Your task to perform on an android device: Open ESPN.com Image 0: 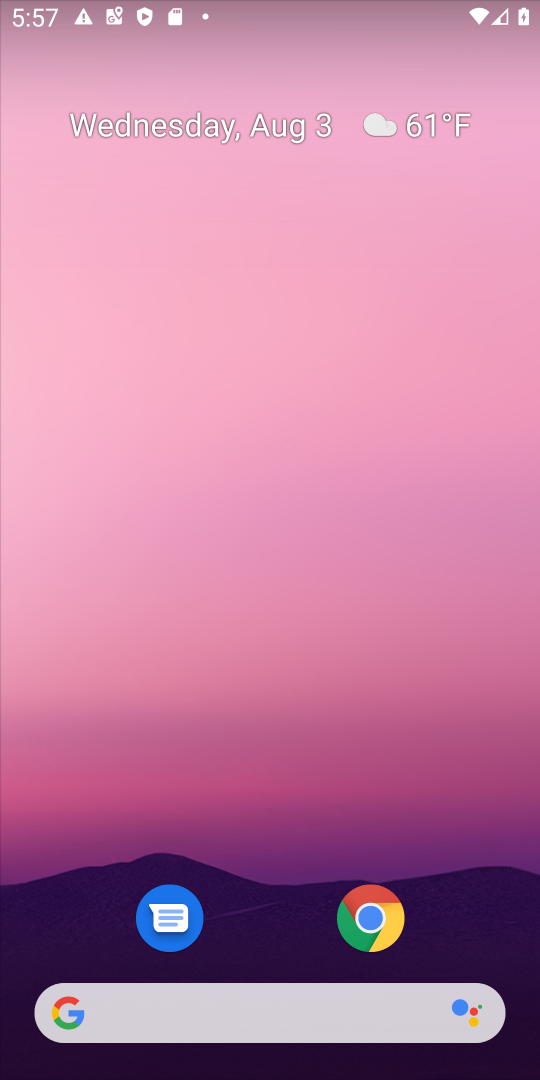
Step 0: click (383, 899)
Your task to perform on an android device: Open ESPN.com Image 1: 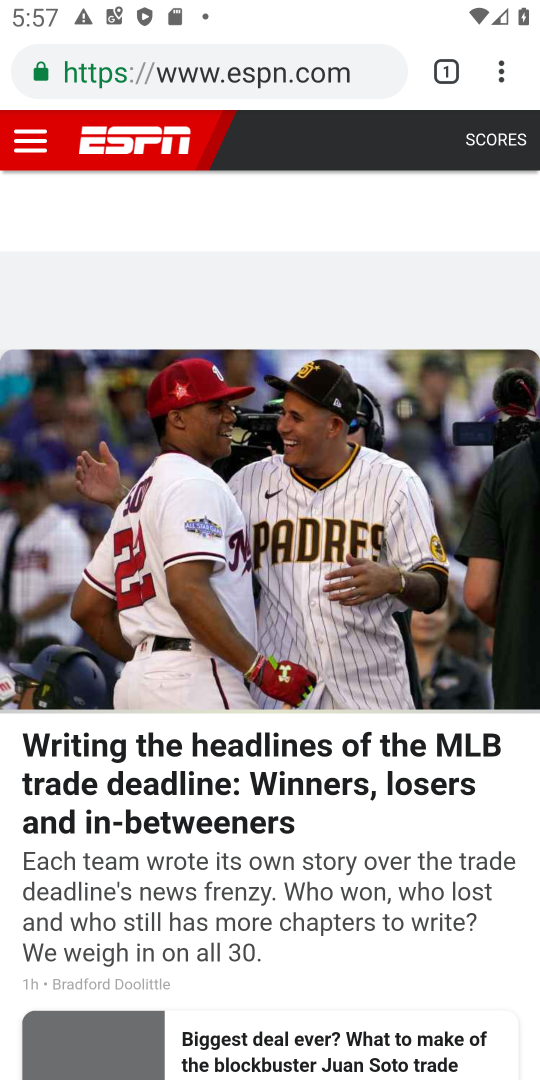
Step 1: click (320, 73)
Your task to perform on an android device: Open ESPN.com Image 2: 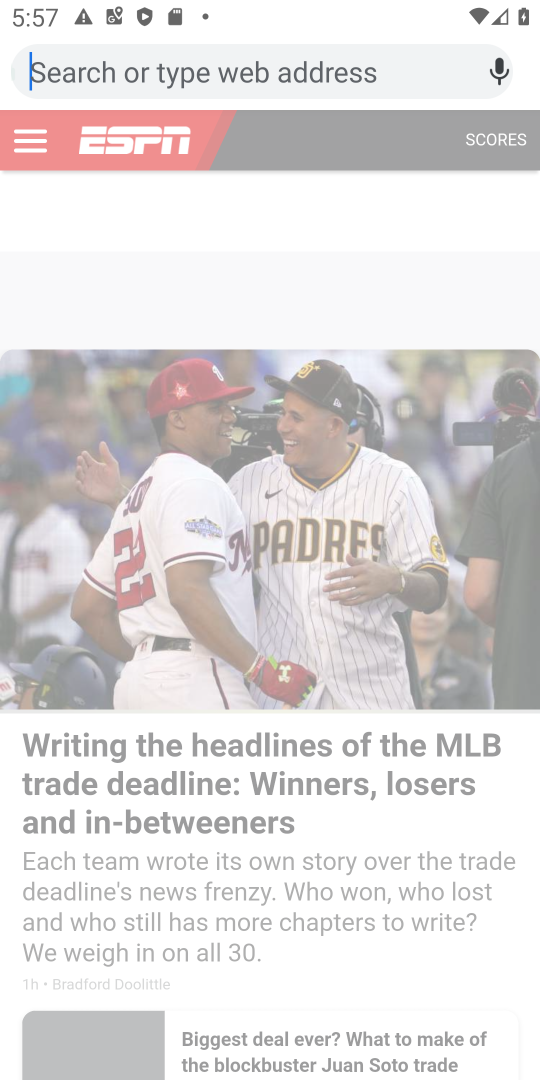
Step 2: task complete